Your task to perform on an android device: Open Android settings Image 0: 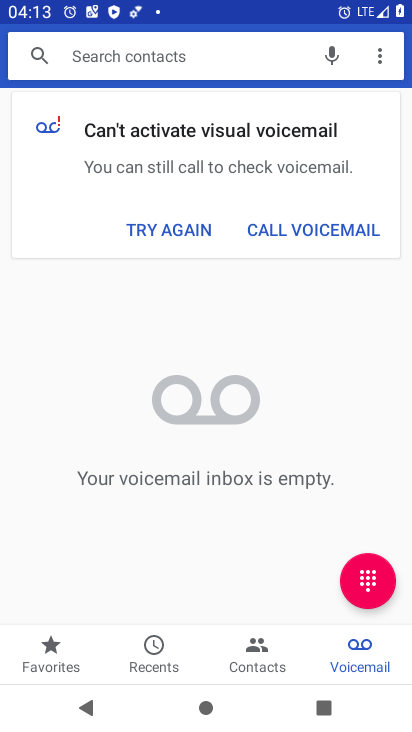
Step 0: press home button
Your task to perform on an android device: Open Android settings Image 1: 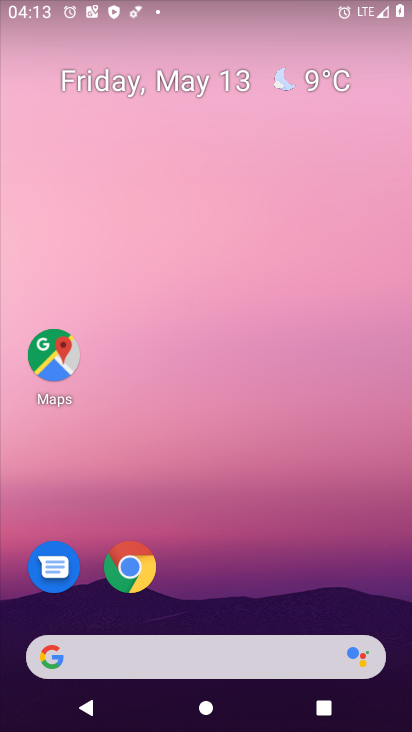
Step 1: drag from (318, 614) to (361, 15)
Your task to perform on an android device: Open Android settings Image 2: 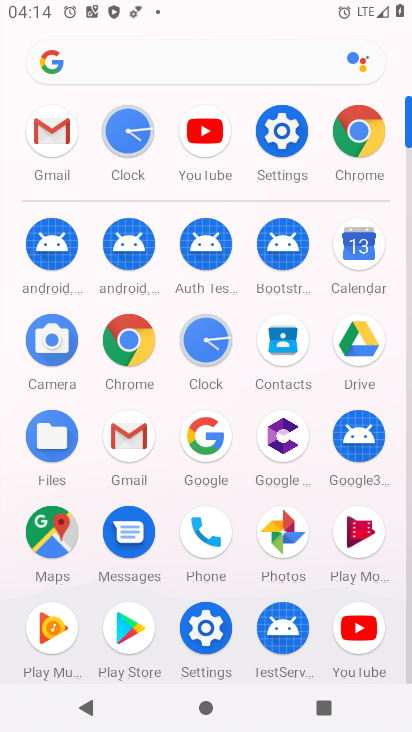
Step 2: click (278, 130)
Your task to perform on an android device: Open Android settings Image 3: 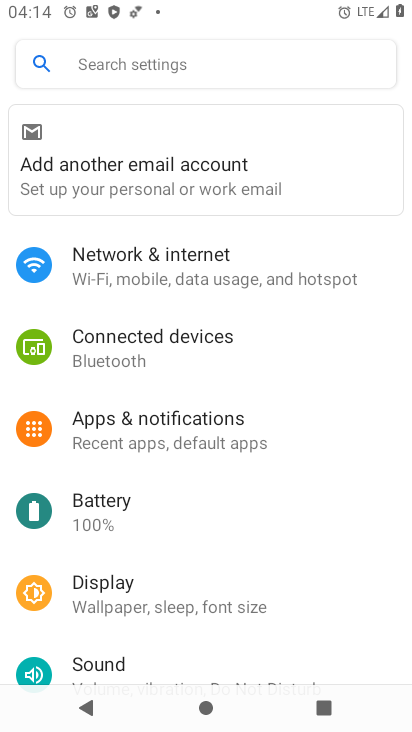
Step 3: drag from (311, 531) to (284, 72)
Your task to perform on an android device: Open Android settings Image 4: 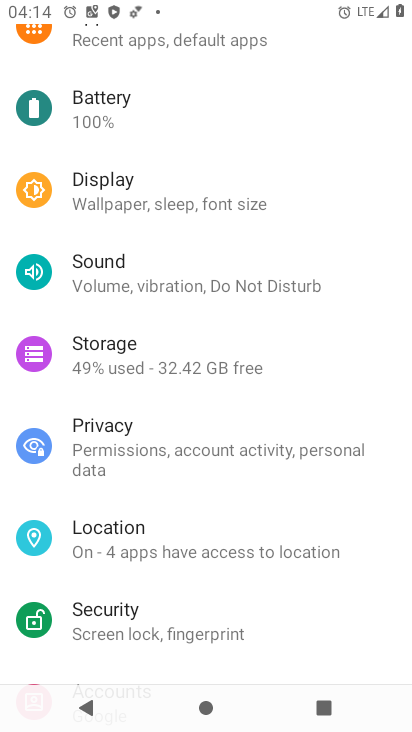
Step 4: drag from (280, 516) to (270, 100)
Your task to perform on an android device: Open Android settings Image 5: 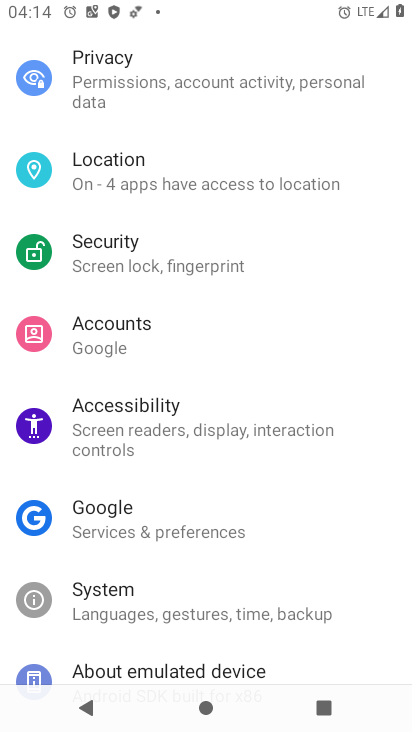
Step 5: drag from (229, 553) to (217, 135)
Your task to perform on an android device: Open Android settings Image 6: 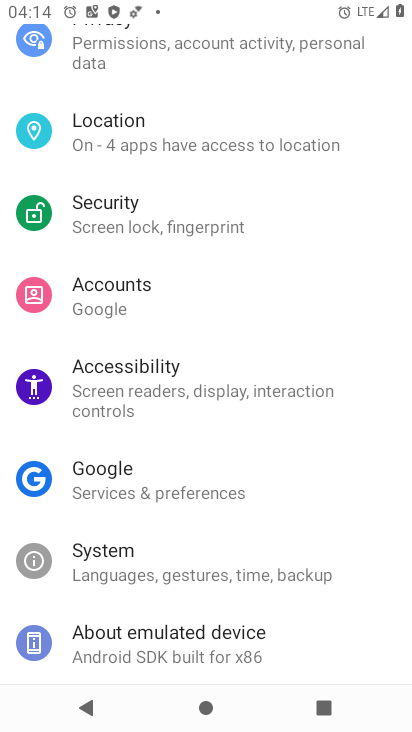
Step 6: click (182, 635)
Your task to perform on an android device: Open Android settings Image 7: 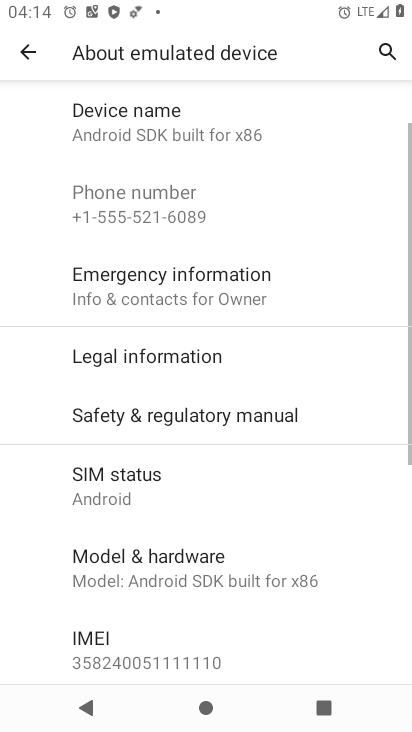
Step 7: task complete